Your task to perform on an android device: turn off wifi Image 0: 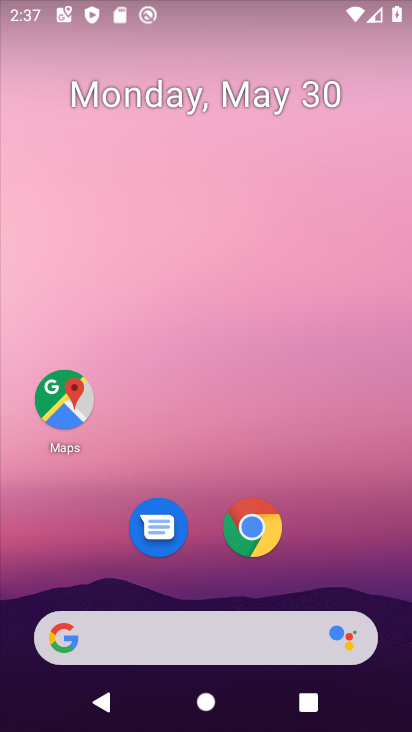
Step 0: drag from (245, 3) to (172, 436)
Your task to perform on an android device: turn off wifi Image 1: 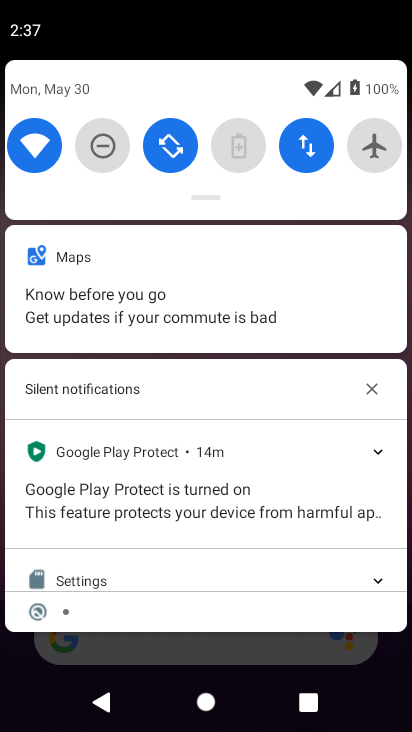
Step 1: click (31, 141)
Your task to perform on an android device: turn off wifi Image 2: 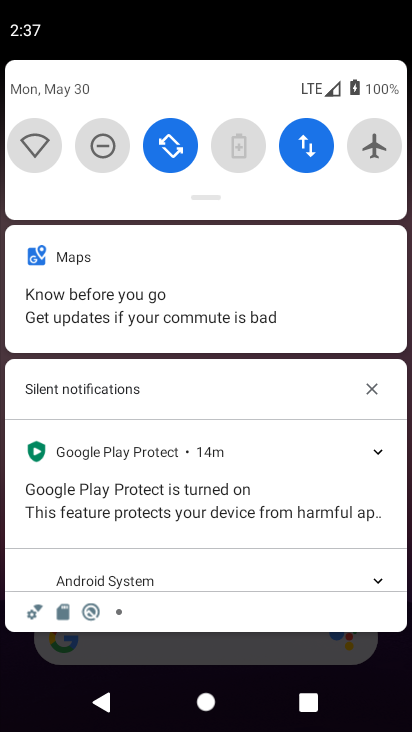
Step 2: task complete